Your task to perform on an android device: Open CNN.com Image 0: 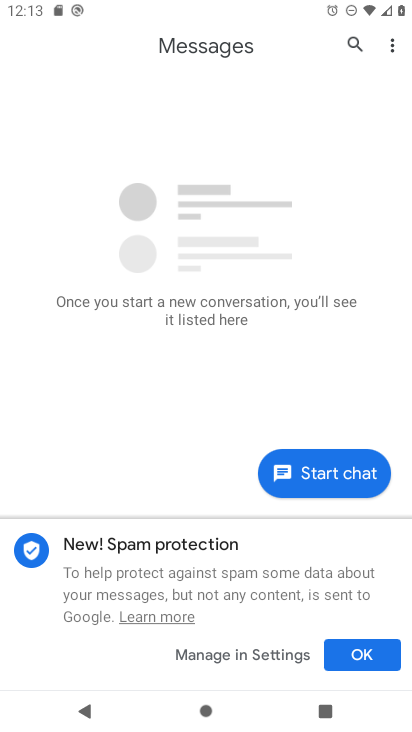
Step 0: press home button
Your task to perform on an android device: Open CNN.com Image 1: 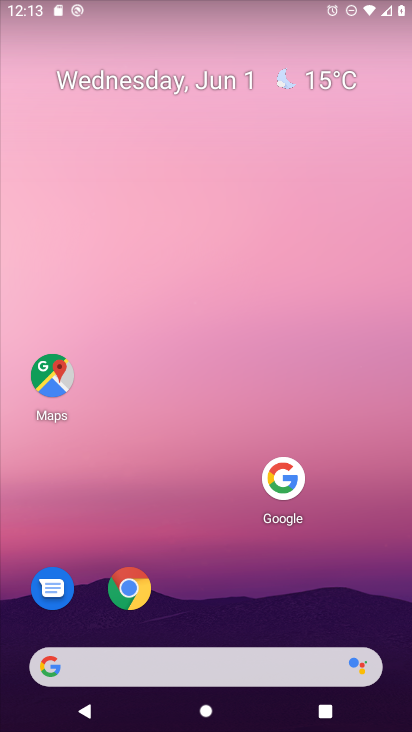
Step 1: click (132, 592)
Your task to perform on an android device: Open CNN.com Image 2: 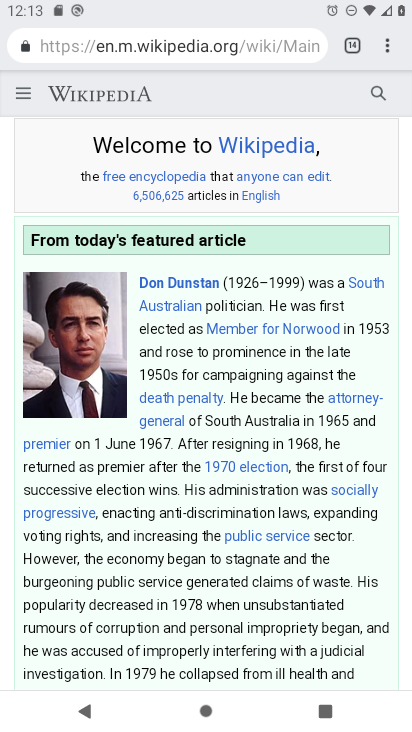
Step 2: drag from (381, 43) to (270, 90)
Your task to perform on an android device: Open CNN.com Image 3: 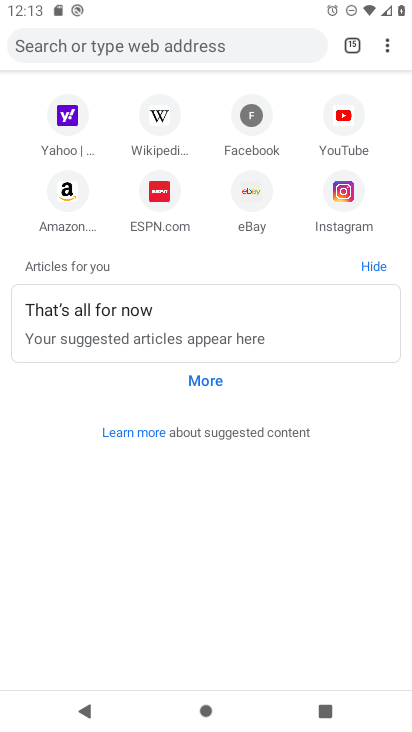
Step 3: click (138, 39)
Your task to perform on an android device: Open CNN.com Image 4: 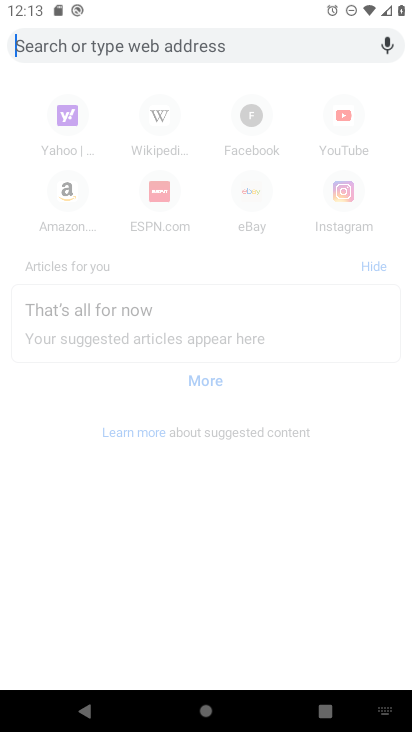
Step 4: type "cnn.com"
Your task to perform on an android device: Open CNN.com Image 5: 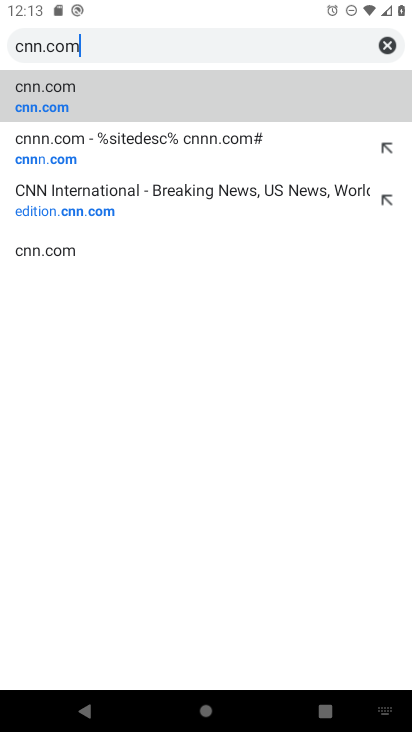
Step 5: click (154, 97)
Your task to perform on an android device: Open CNN.com Image 6: 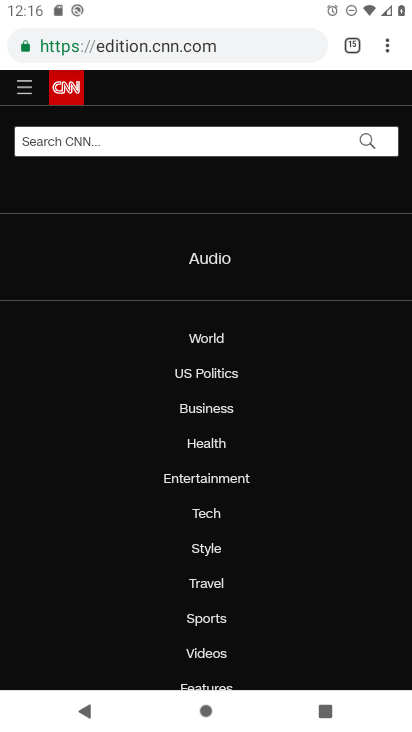
Step 6: task complete